Your task to perform on an android device: Open maps Image 0: 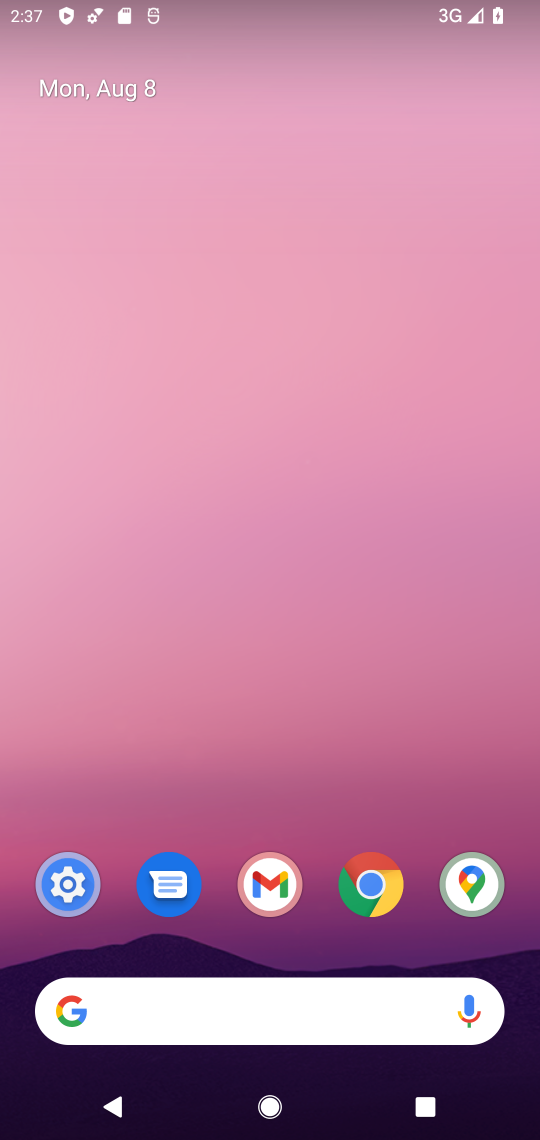
Step 0: click (487, 886)
Your task to perform on an android device: Open maps Image 1: 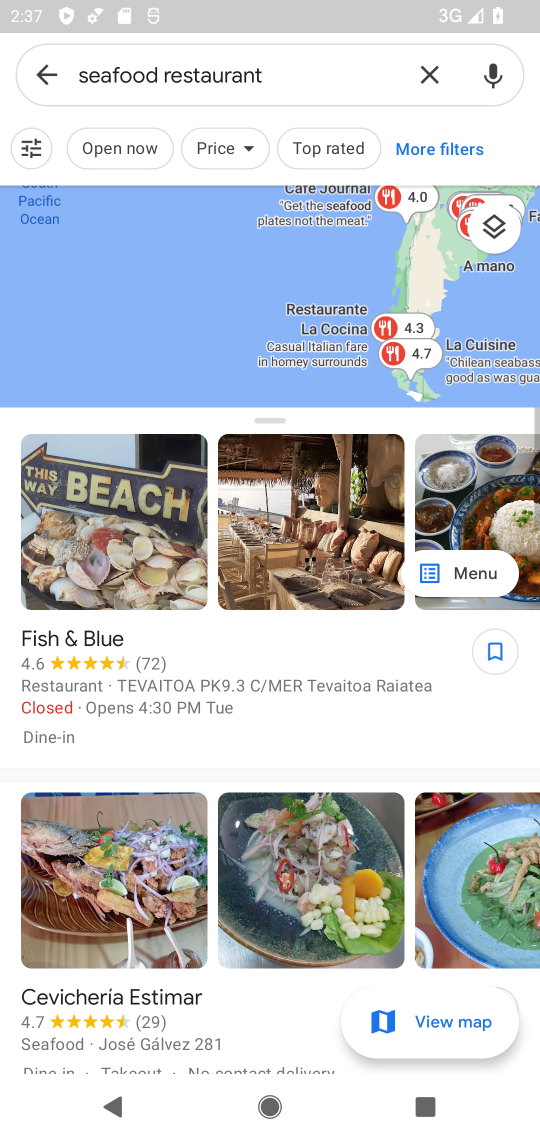
Step 1: click (43, 65)
Your task to perform on an android device: Open maps Image 2: 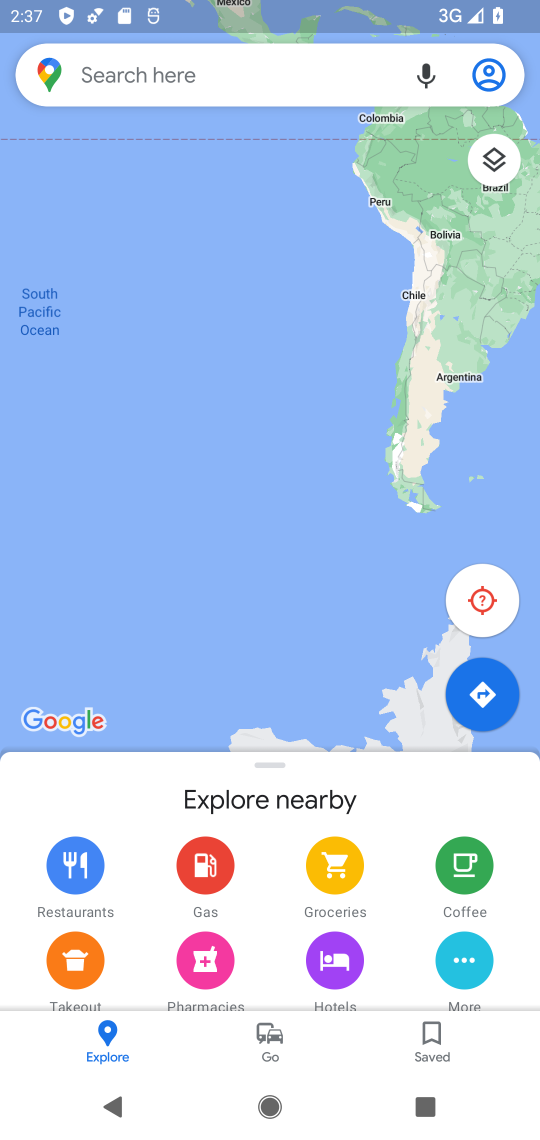
Step 2: task complete